Your task to perform on an android device: toggle show notifications on the lock screen Image 0: 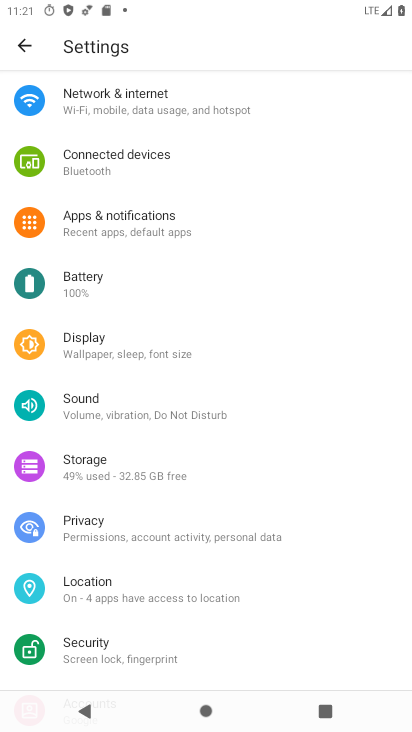
Step 0: press home button
Your task to perform on an android device: toggle show notifications on the lock screen Image 1: 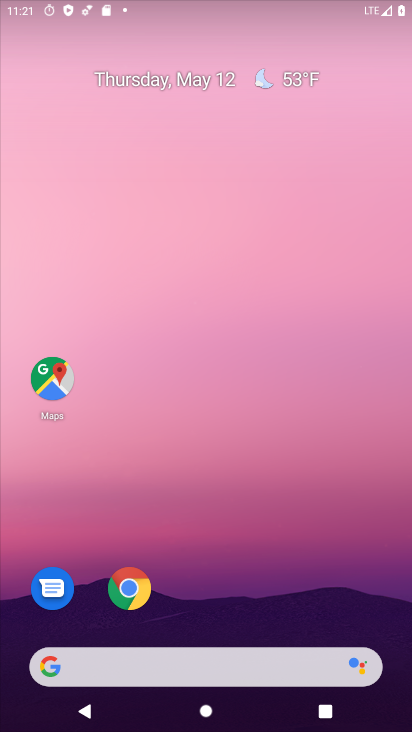
Step 1: drag from (338, 606) to (327, 187)
Your task to perform on an android device: toggle show notifications on the lock screen Image 2: 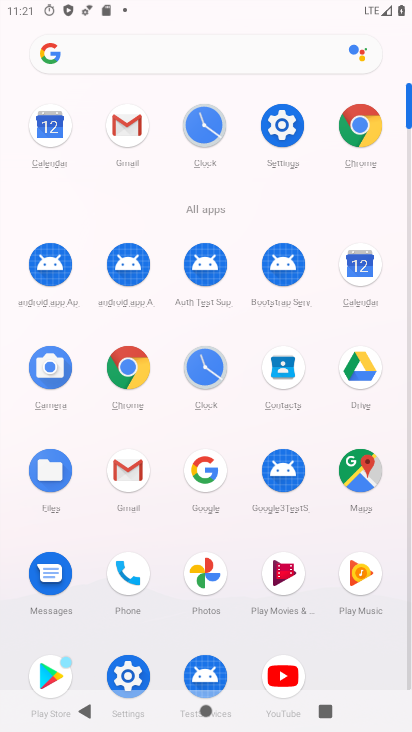
Step 2: click (290, 131)
Your task to perform on an android device: toggle show notifications on the lock screen Image 3: 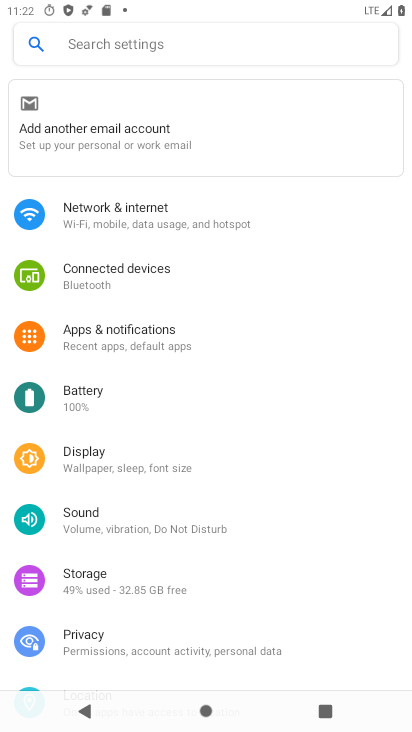
Step 3: click (99, 324)
Your task to perform on an android device: toggle show notifications on the lock screen Image 4: 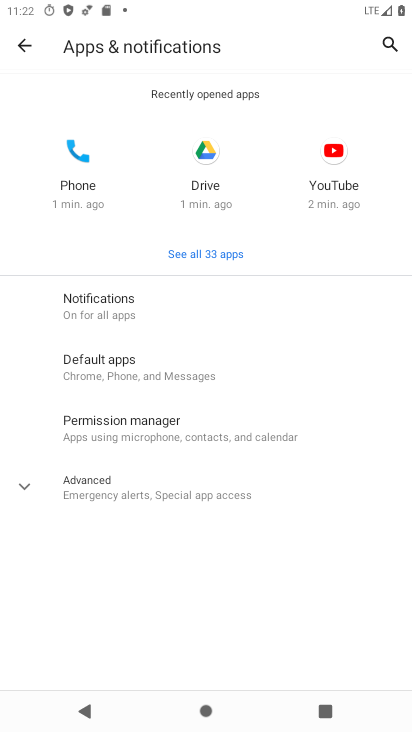
Step 4: click (130, 302)
Your task to perform on an android device: toggle show notifications on the lock screen Image 5: 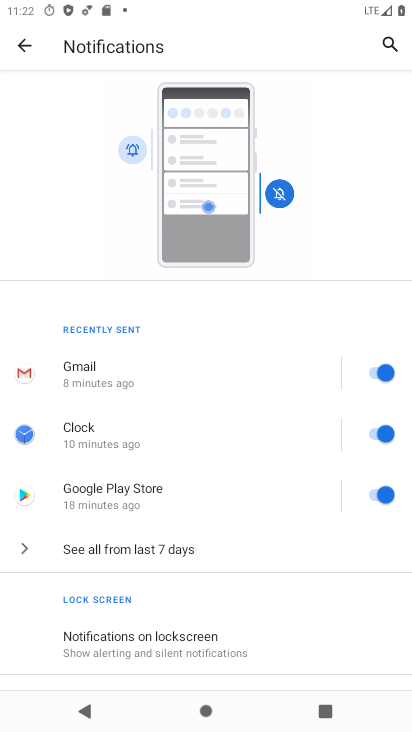
Step 5: click (163, 634)
Your task to perform on an android device: toggle show notifications on the lock screen Image 6: 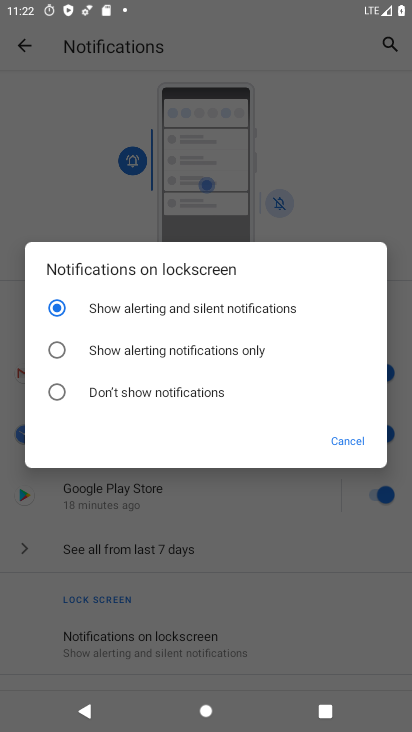
Step 6: click (180, 389)
Your task to perform on an android device: toggle show notifications on the lock screen Image 7: 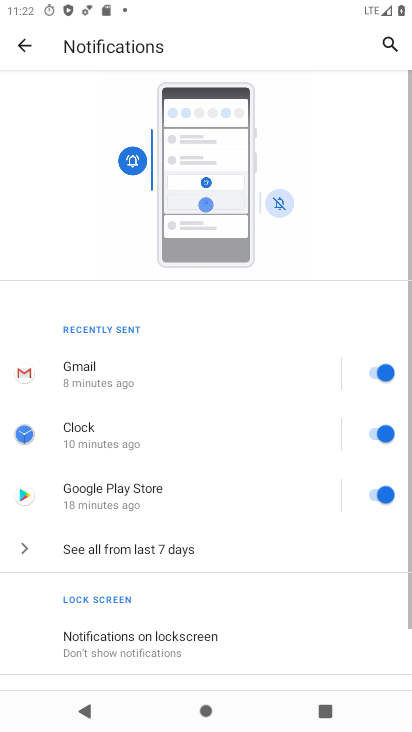
Step 7: task complete